Your task to perform on an android device: turn off wifi Image 0: 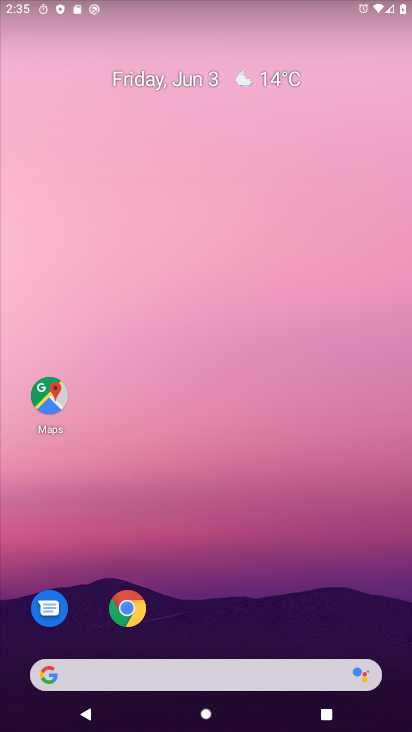
Step 0: drag from (174, 308) to (183, 107)
Your task to perform on an android device: turn off wifi Image 1: 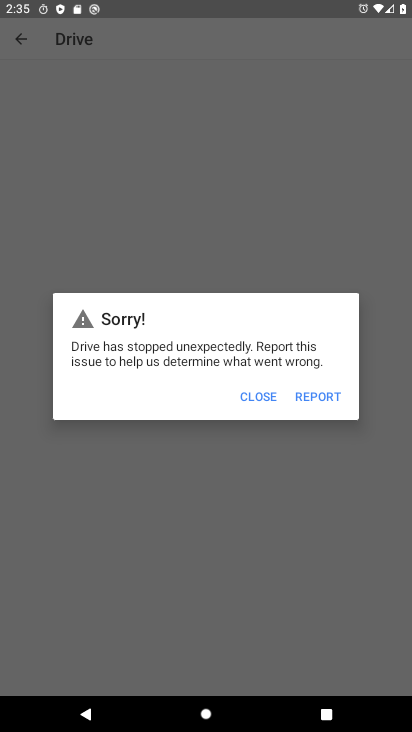
Step 1: press home button
Your task to perform on an android device: turn off wifi Image 2: 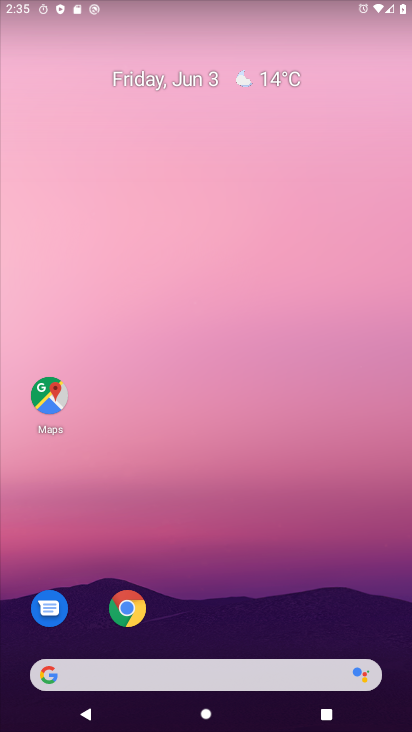
Step 2: drag from (239, 688) to (162, 0)
Your task to perform on an android device: turn off wifi Image 3: 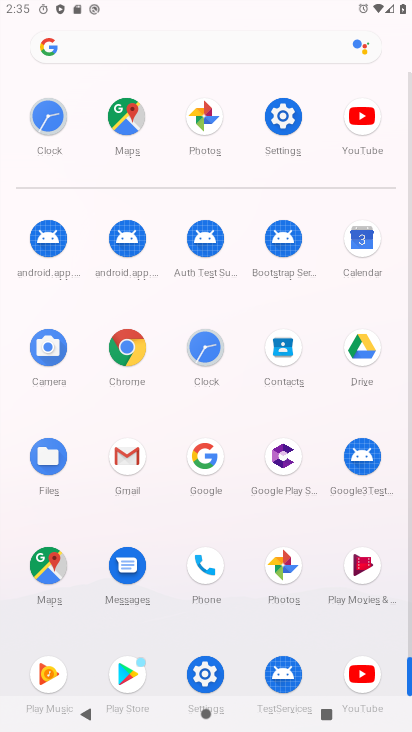
Step 3: click (278, 142)
Your task to perform on an android device: turn off wifi Image 4: 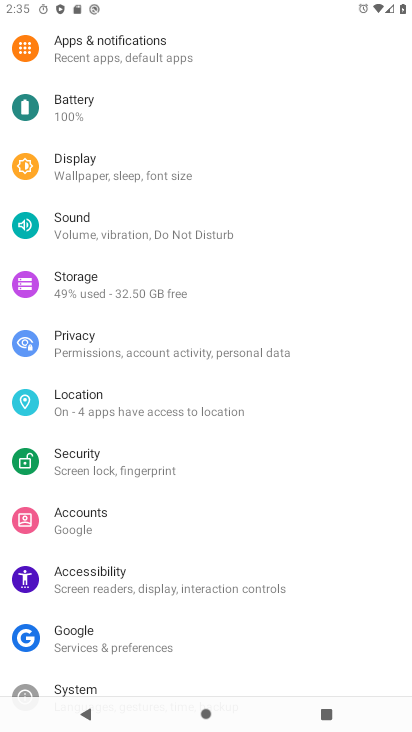
Step 4: drag from (89, 131) to (213, 689)
Your task to perform on an android device: turn off wifi Image 5: 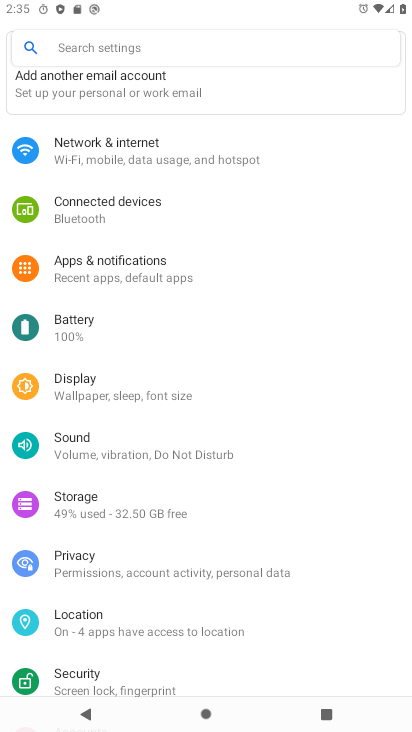
Step 5: click (127, 149)
Your task to perform on an android device: turn off wifi Image 6: 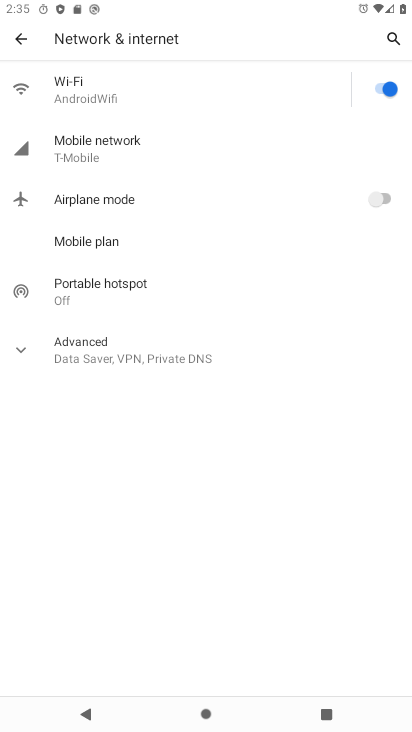
Step 6: click (381, 88)
Your task to perform on an android device: turn off wifi Image 7: 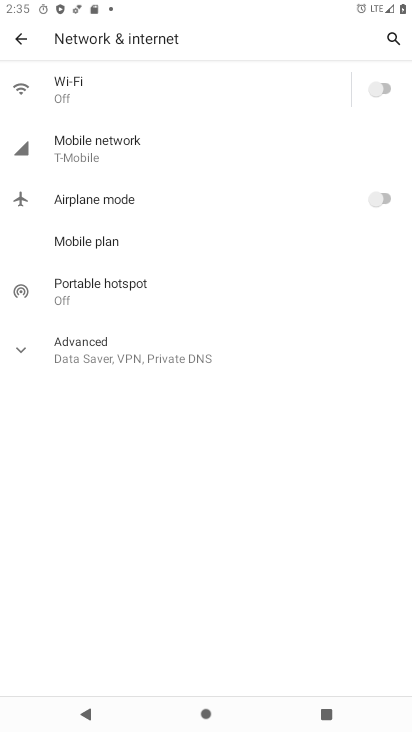
Step 7: task complete